Your task to perform on an android device: Search for good Thai restaurants Image 0: 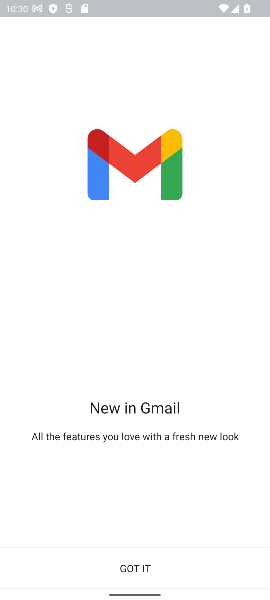
Step 0: press home button
Your task to perform on an android device: Search for good Thai restaurants Image 1: 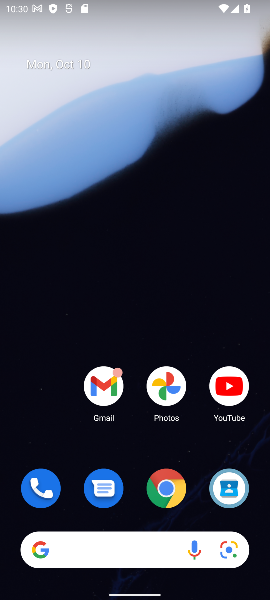
Step 1: click (167, 496)
Your task to perform on an android device: Search for good Thai restaurants Image 2: 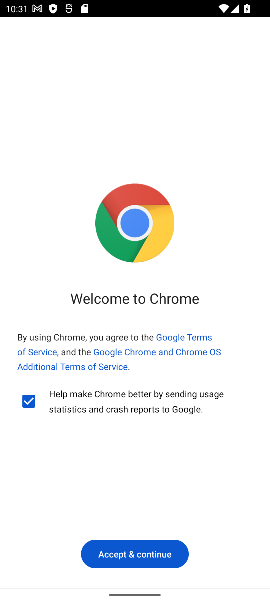
Step 2: click (140, 551)
Your task to perform on an android device: Search for good Thai restaurants Image 3: 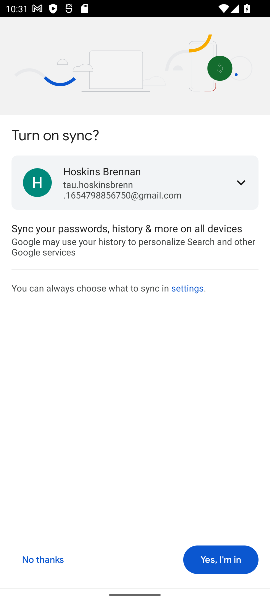
Step 3: click (201, 564)
Your task to perform on an android device: Search for good Thai restaurants Image 4: 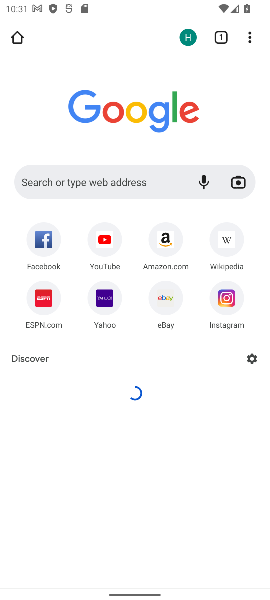
Step 4: click (130, 186)
Your task to perform on an android device: Search for good Thai restaurants Image 5: 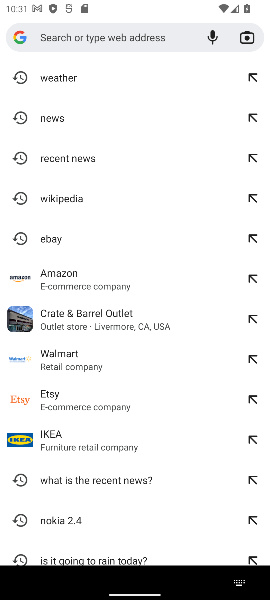
Step 5: type "good Thai restaurants"
Your task to perform on an android device: Search for good Thai restaurants Image 6: 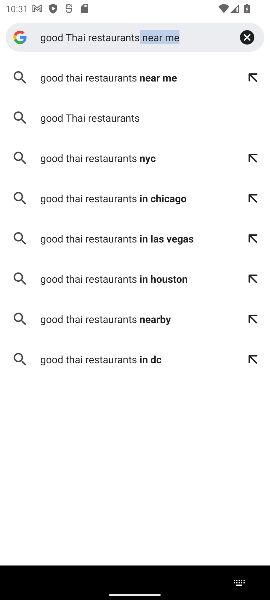
Step 6: click (100, 119)
Your task to perform on an android device: Search for good Thai restaurants Image 7: 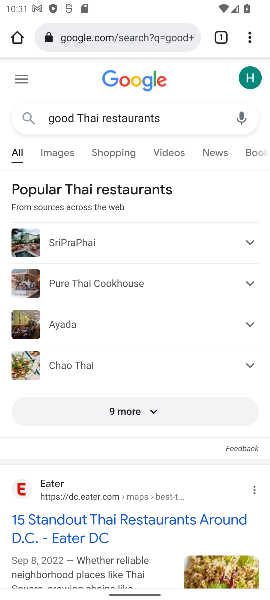
Step 7: task complete